Your task to perform on an android device: turn on the 24-hour format for clock Image 0: 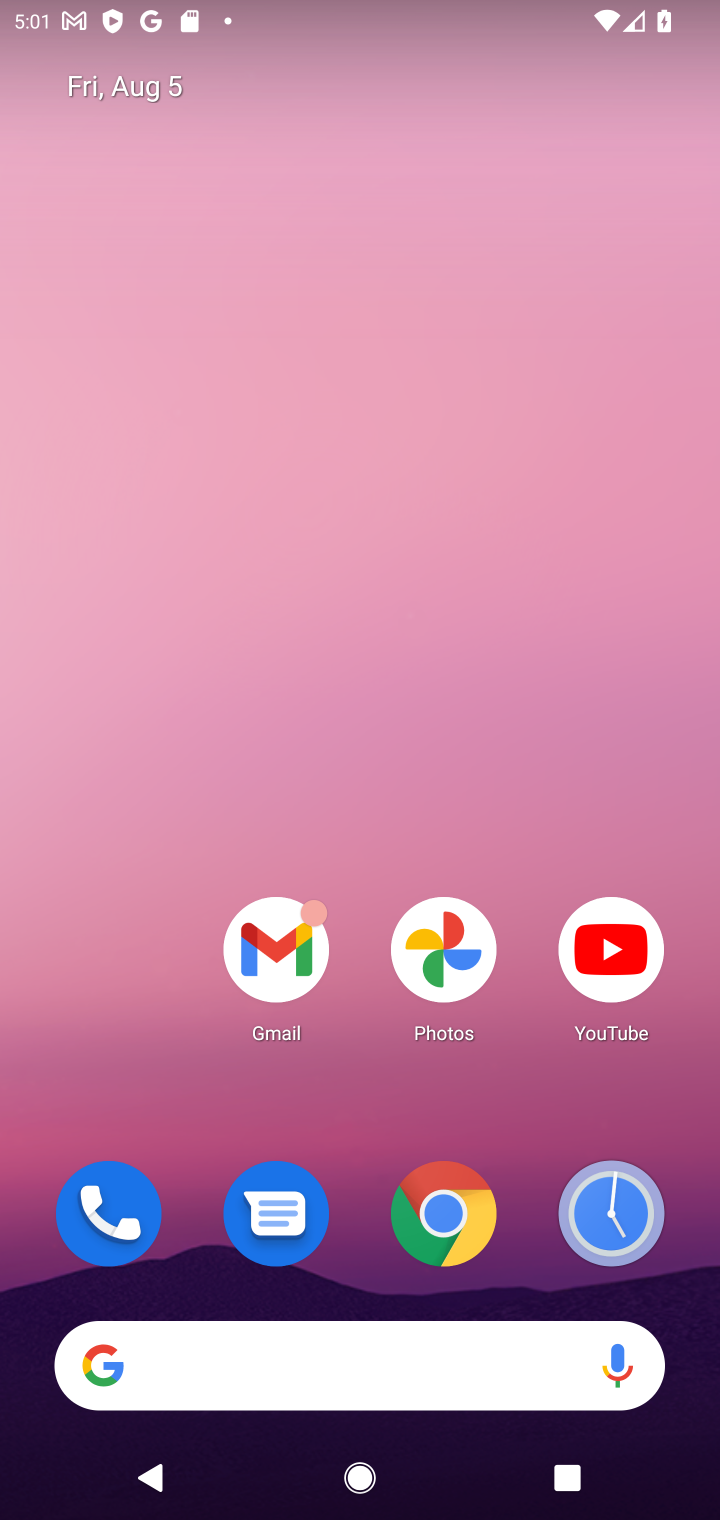
Step 0: click (658, 1196)
Your task to perform on an android device: turn on the 24-hour format for clock Image 1: 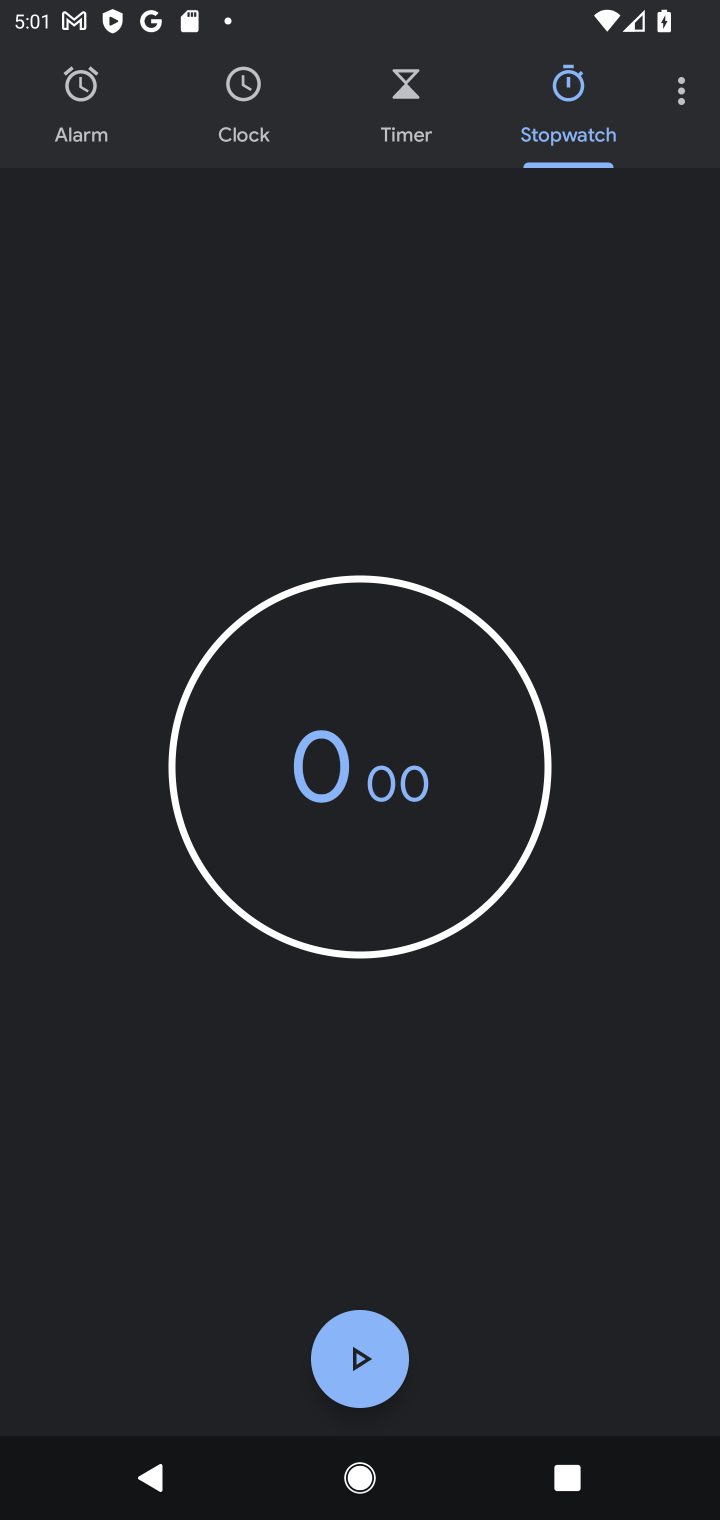
Step 1: click (670, 89)
Your task to perform on an android device: turn on the 24-hour format for clock Image 2: 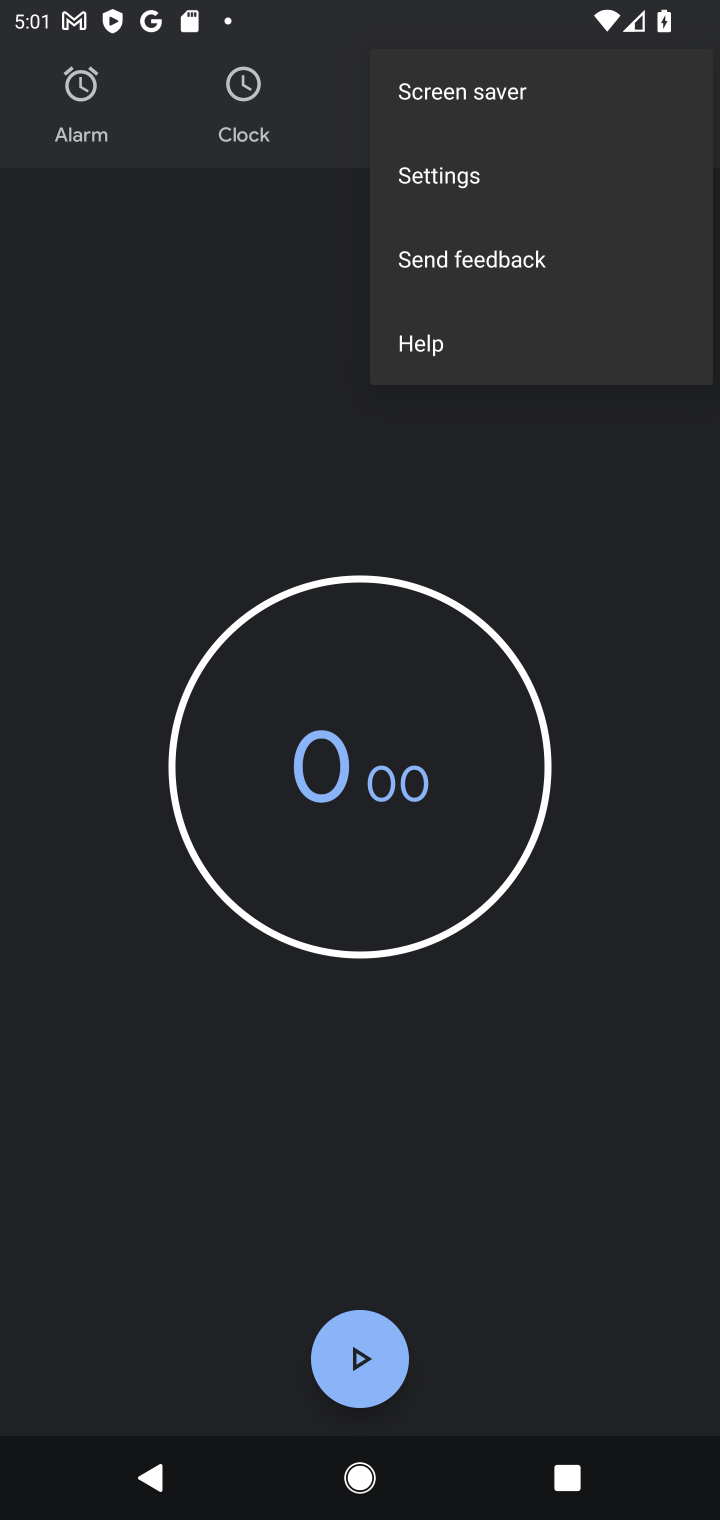
Step 2: click (434, 199)
Your task to perform on an android device: turn on the 24-hour format for clock Image 3: 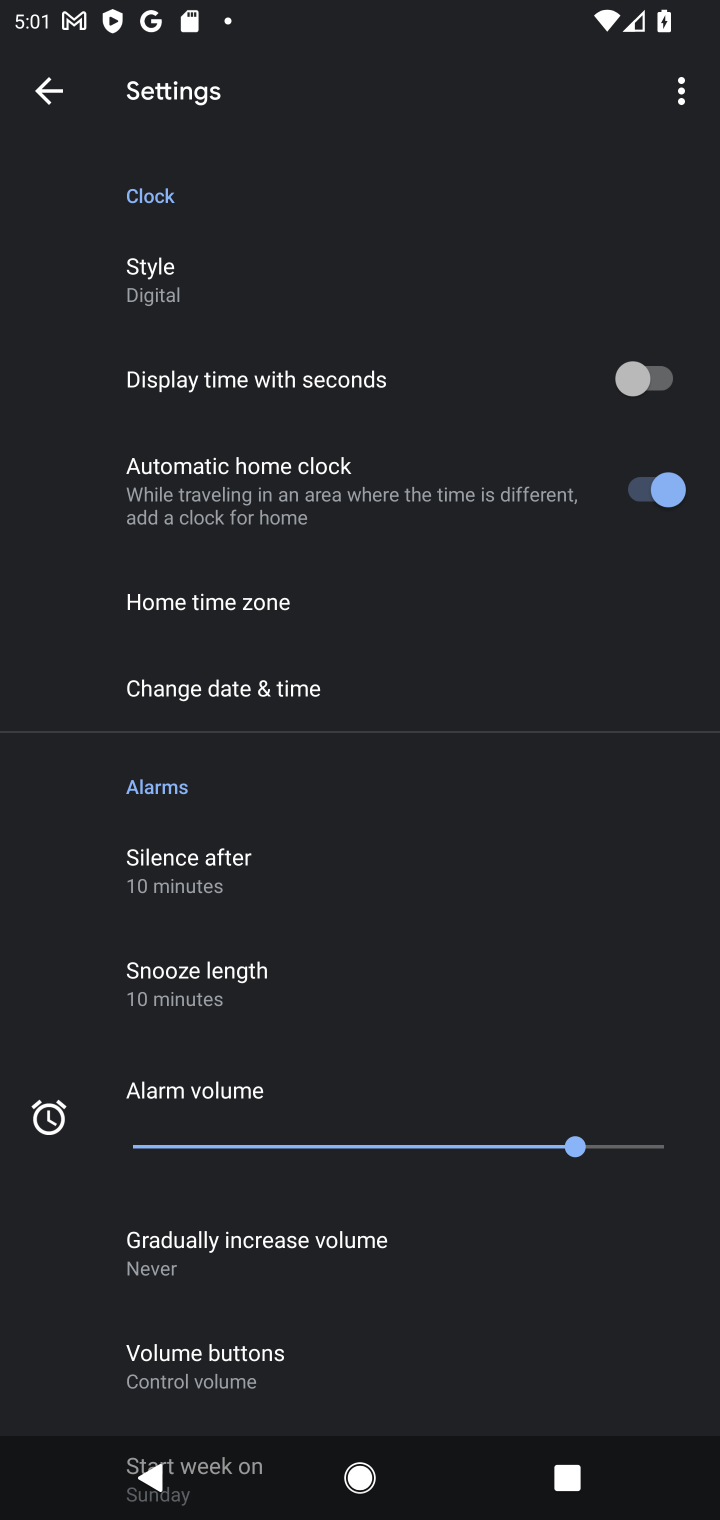
Step 3: task complete